Your task to perform on an android device: Go to notification settings Image 0: 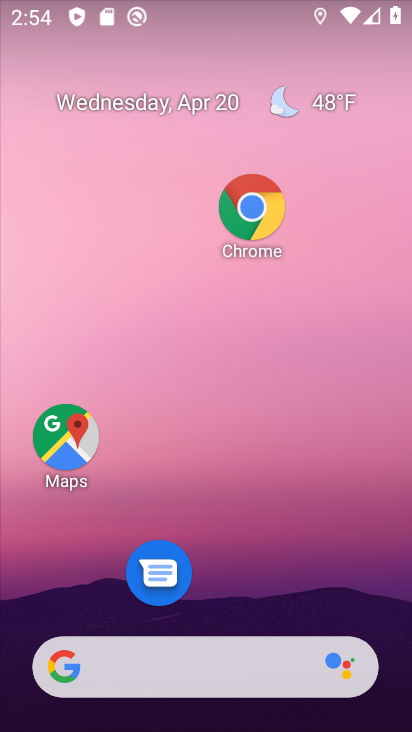
Step 0: drag from (292, 605) to (366, 330)
Your task to perform on an android device: Go to notification settings Image 1: 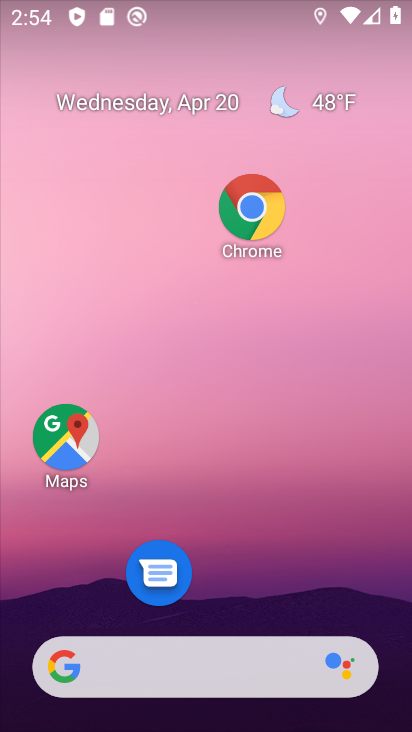
Step 1: drag from (279, 670) to (362, 290)
Your task to perform on an android device: Go to notification settings Image 2: 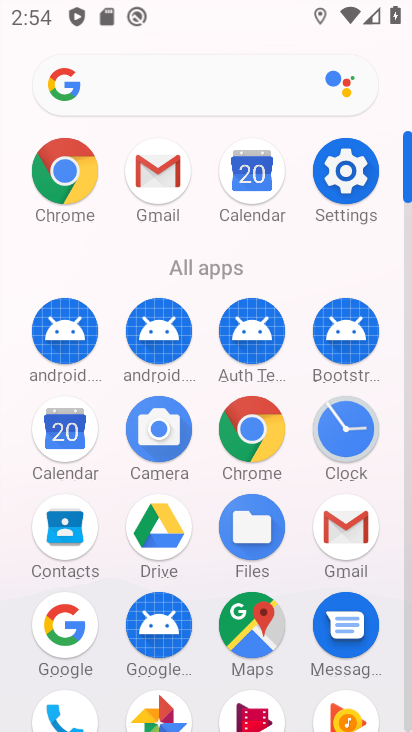
Step 2: click (360, 195)
Your task to perform on an android device: Go to notification settings Image 3: 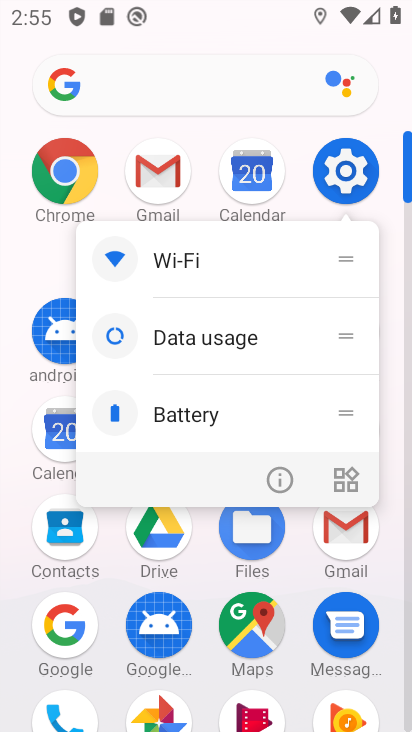
Step 3: click (353, 188)
Your task to perform on an android device: Go to notification settings Image 4: 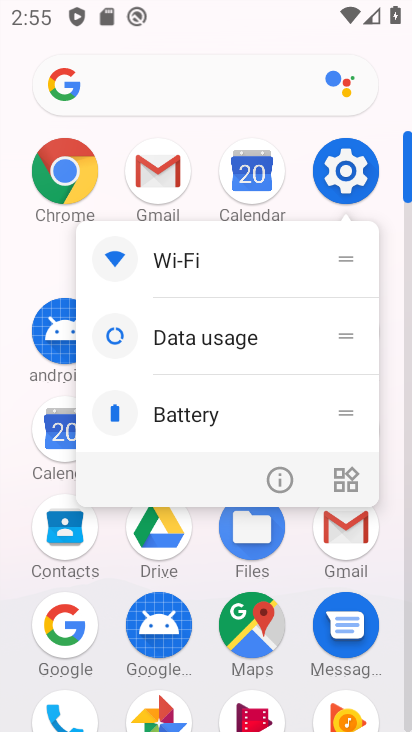
Step 4: click (357, 183)
Your task to perform on an android device: Go to notification settings Image 5: 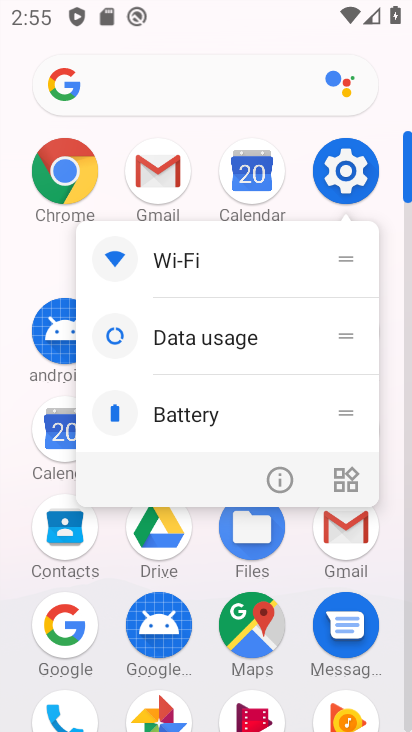
Step 5: click (361, 186)
Your task to perform on an android device: Go to notification settings Image 6: 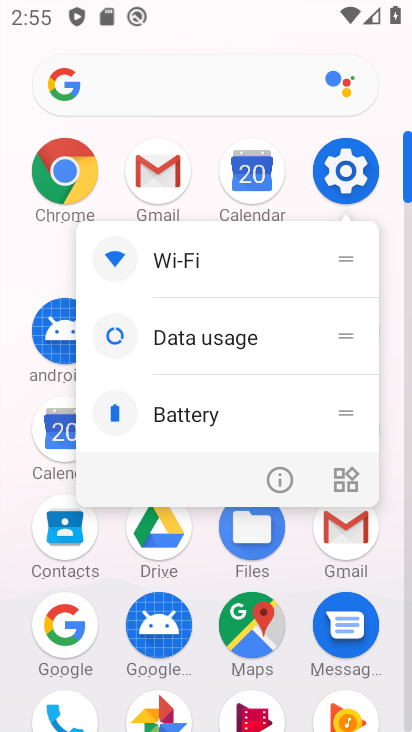
Step 6: click (349, 180)
Your task to perform on an android device: Go to notification settings Image 7: 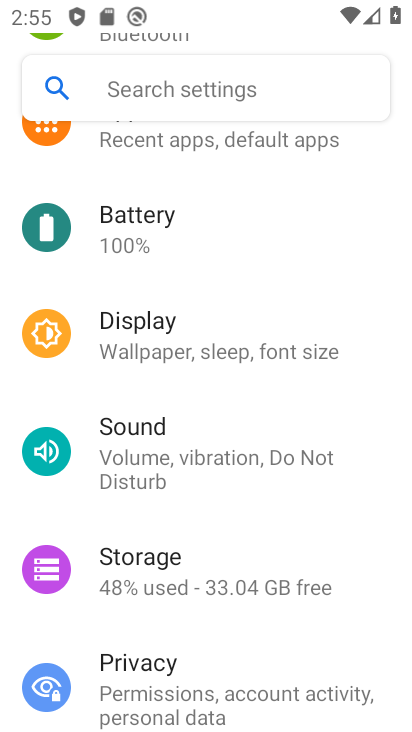
Step 7: click (349, 180)
Your task to perform on an android device: Go to notification settings Image 8: 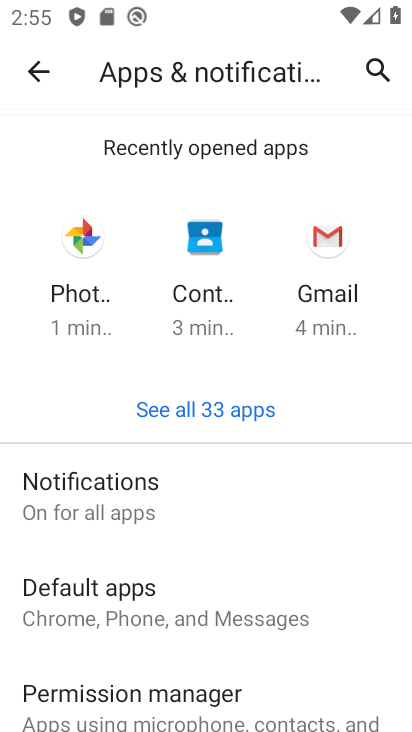
Step 8: click (187, 490)
Your task to perform on an android device: Go to notification settings Image 9: 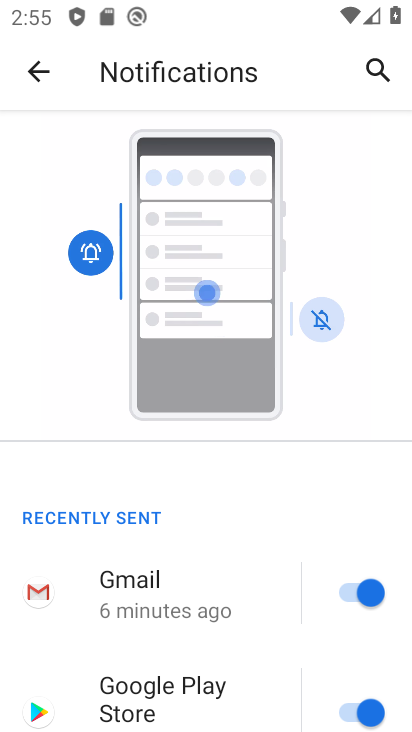
Step 9: task complete